Your task to perform on an android device: What is the recent news? Image 0: 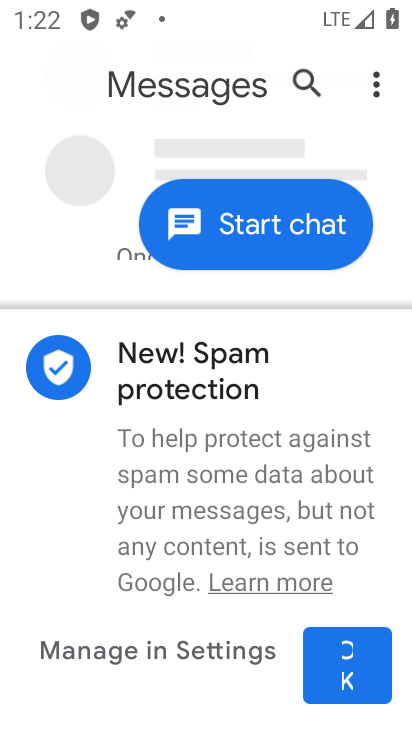
Step 0: press home button
Your task to perform on an android device: What is the recent news? Image 1: 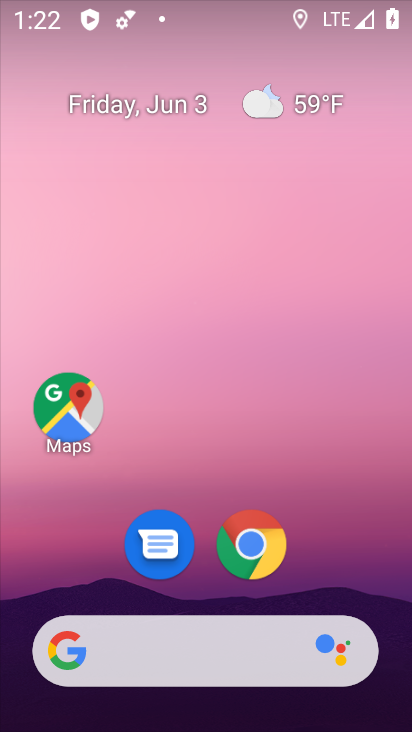
Step 1: click (224, 634)
Your task to perform on an android device: What is the recent news? Image 2: 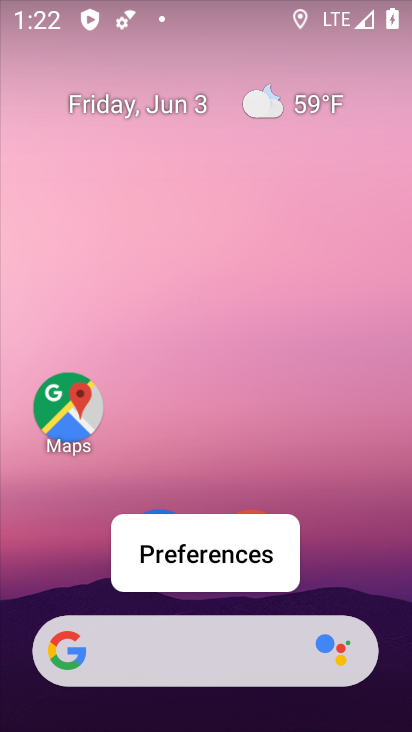
Step 2: click (221, 642)
Your task to perform on an android device: What is the recent news? Image 3: 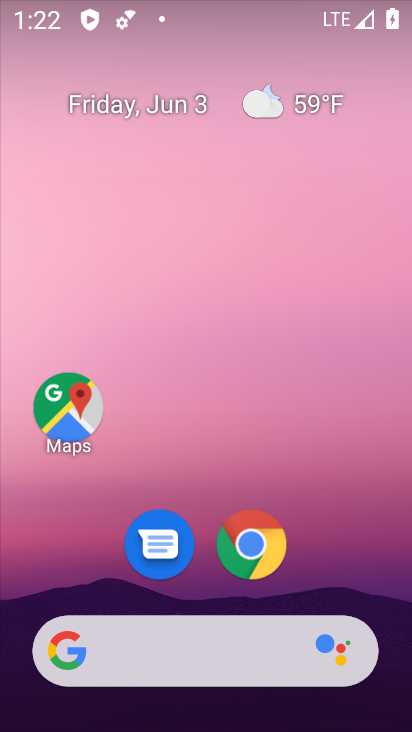
Step 3: click (210, 663)
Your task to perform on an android device: What is the recent news? Image 4: 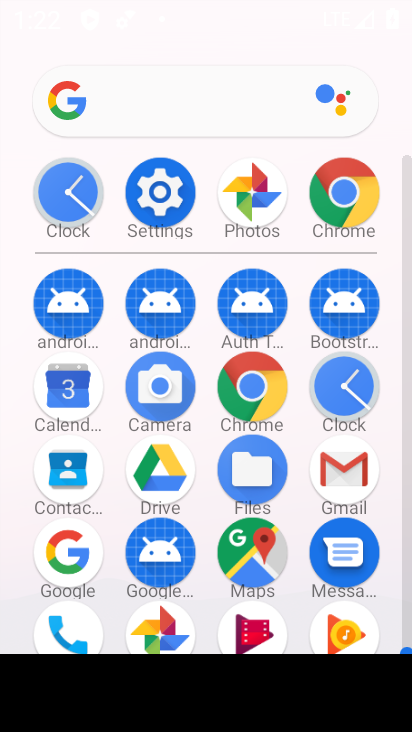
Step 4: click (82, 573)
Your task to perform on an android device: What is the recent news? Image 5: 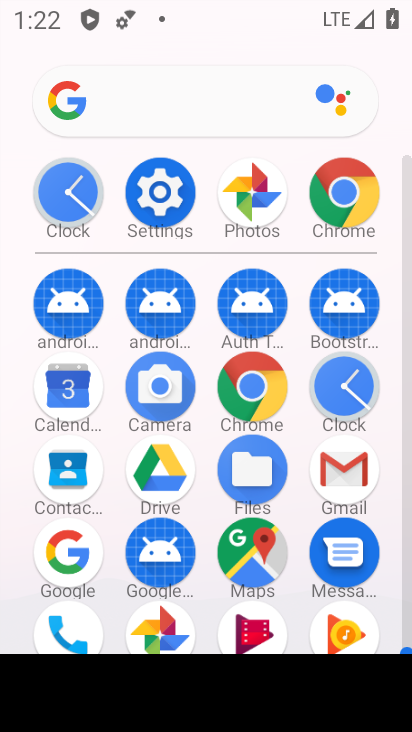
Step 5: click (72, 561)
Your task to perform on an android device: What is the recent news? Image 6: 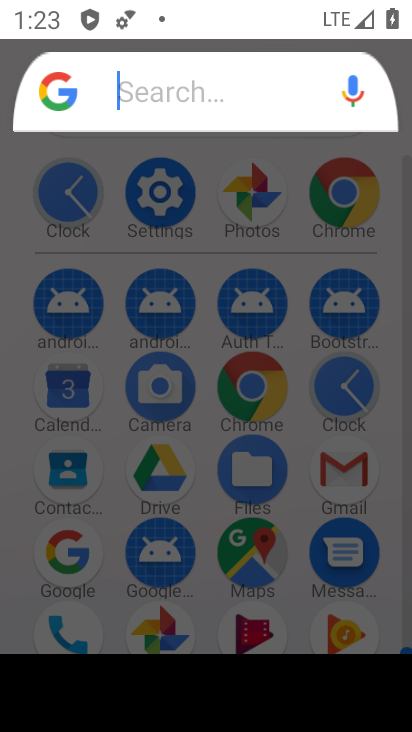
Step 6: click (72, 561)
Your task to perform on an android device: What is the recent news? Image 7: 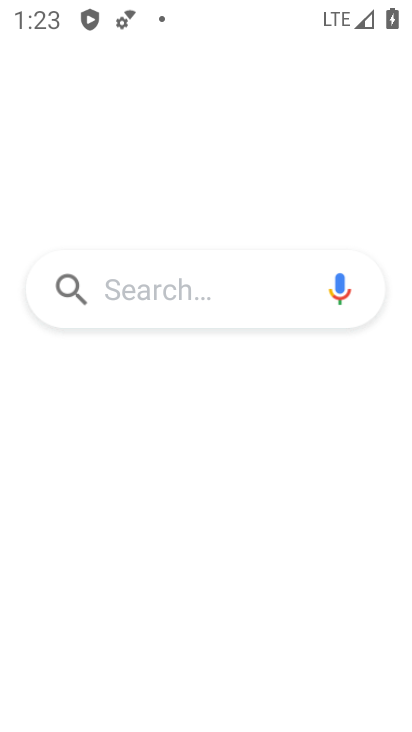
Step 7: click (137, 296)
Your task to perform on an android device: What is the recent news? Image 8: 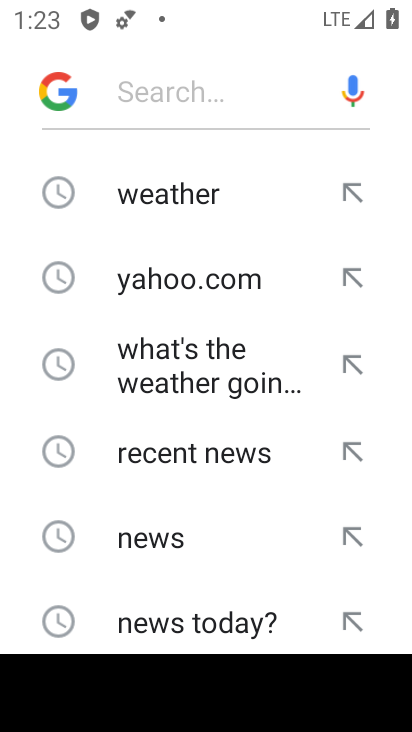
Step 8: click (157, 540)
Your task to perform on an android device: What is the recent news? Image 9: 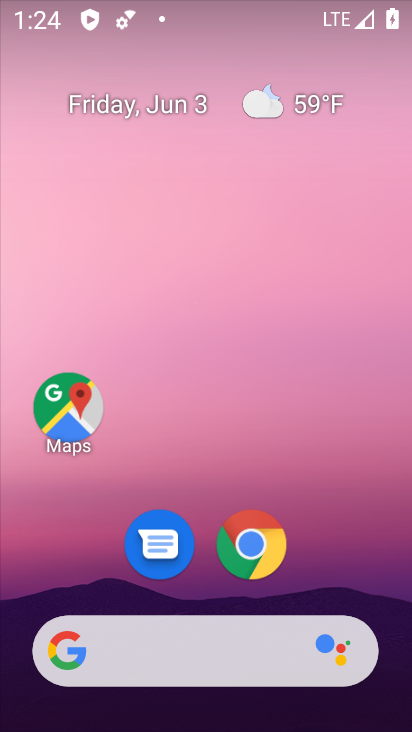
Step 9: drag from (213, 593) to (39, 638)
Your task to perform on an android device: What is the recent news? Image 10: 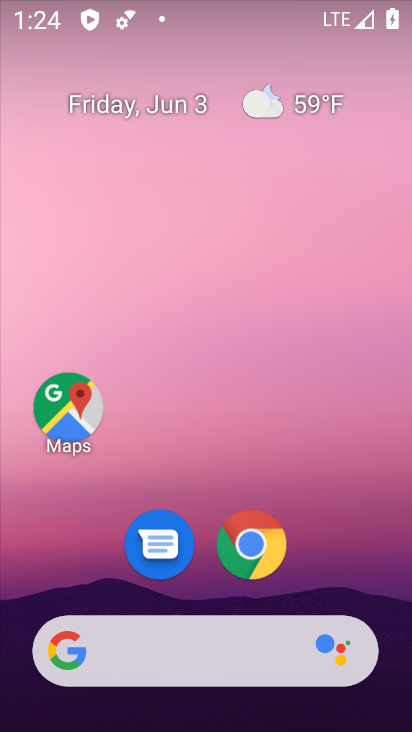
Step 10: click (218, 642)
Your task to perform on an android device: What is the recent news? Image 11: 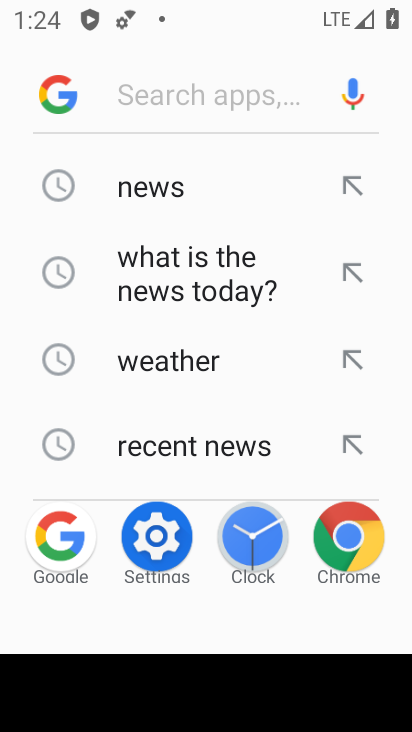
Step 11: click (148, 193)
Your task to perform on an android device: What is the recent news? Image 12: 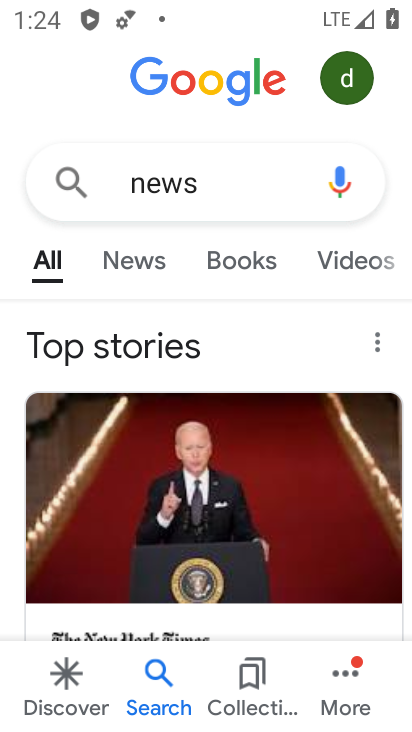
Step 12: click (128, 269)
Your task to perform on an android device: What is the recent news? Image 13: 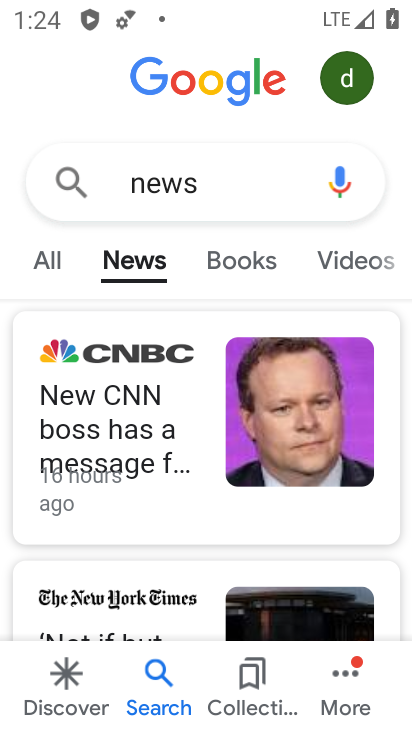
Step 13: task complete